Your task to perform on an android device: Search for "razer blackwidow" on walmart, select the first entry, and add it to the cart. Image 0: 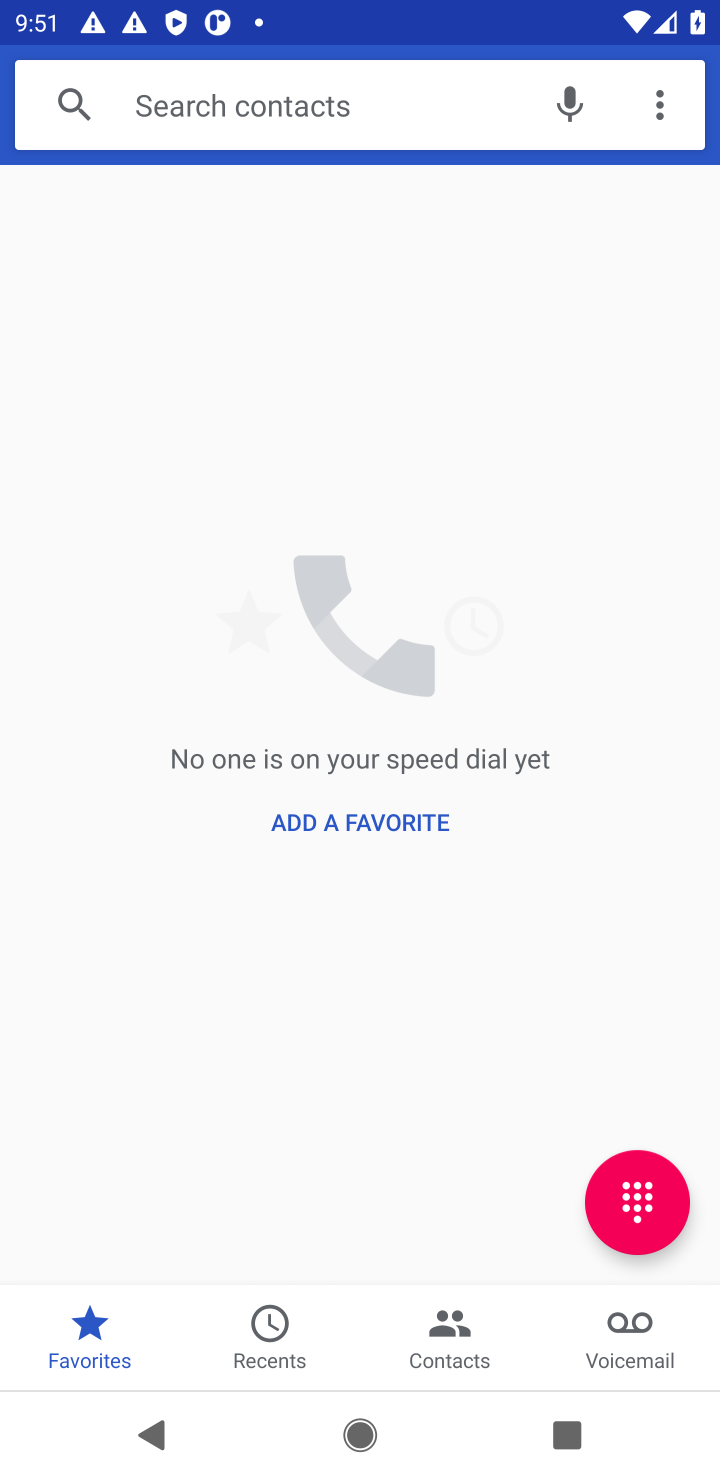
Step 0: press home button
Your task to perform on an android device: Search for "razer blackwidow" on walmart, select the first entry, and add it to the cart. Image 1: 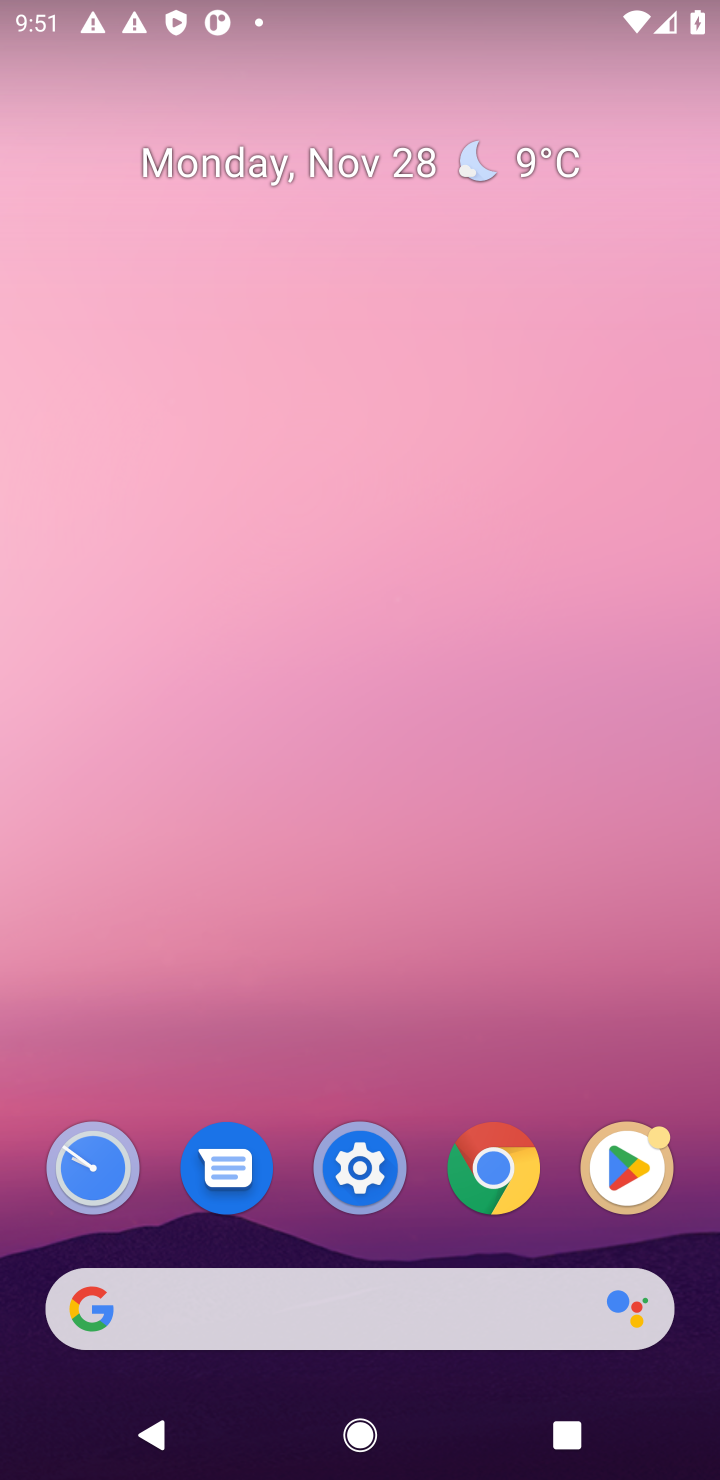
Step 1: click (234, 1296)
Your task to perform on an android device: Search for "razer blackwidow" on walmart, select the first entry, and add it to the cart. Image 2: 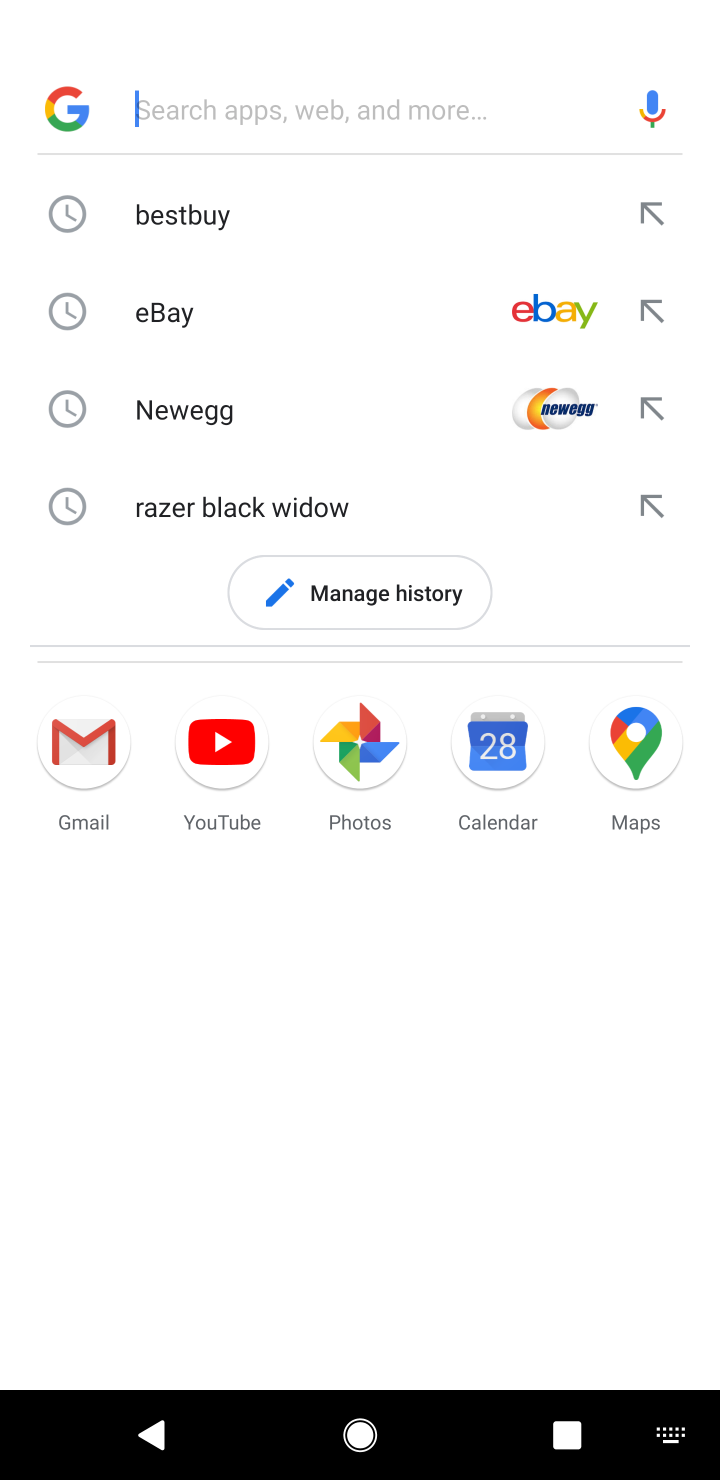
Step 2: type "walmart"
Your task to perform on an android device: Search for "razer blackwidow" on walmart, select the first entry, and add it to the cart. Image 3: 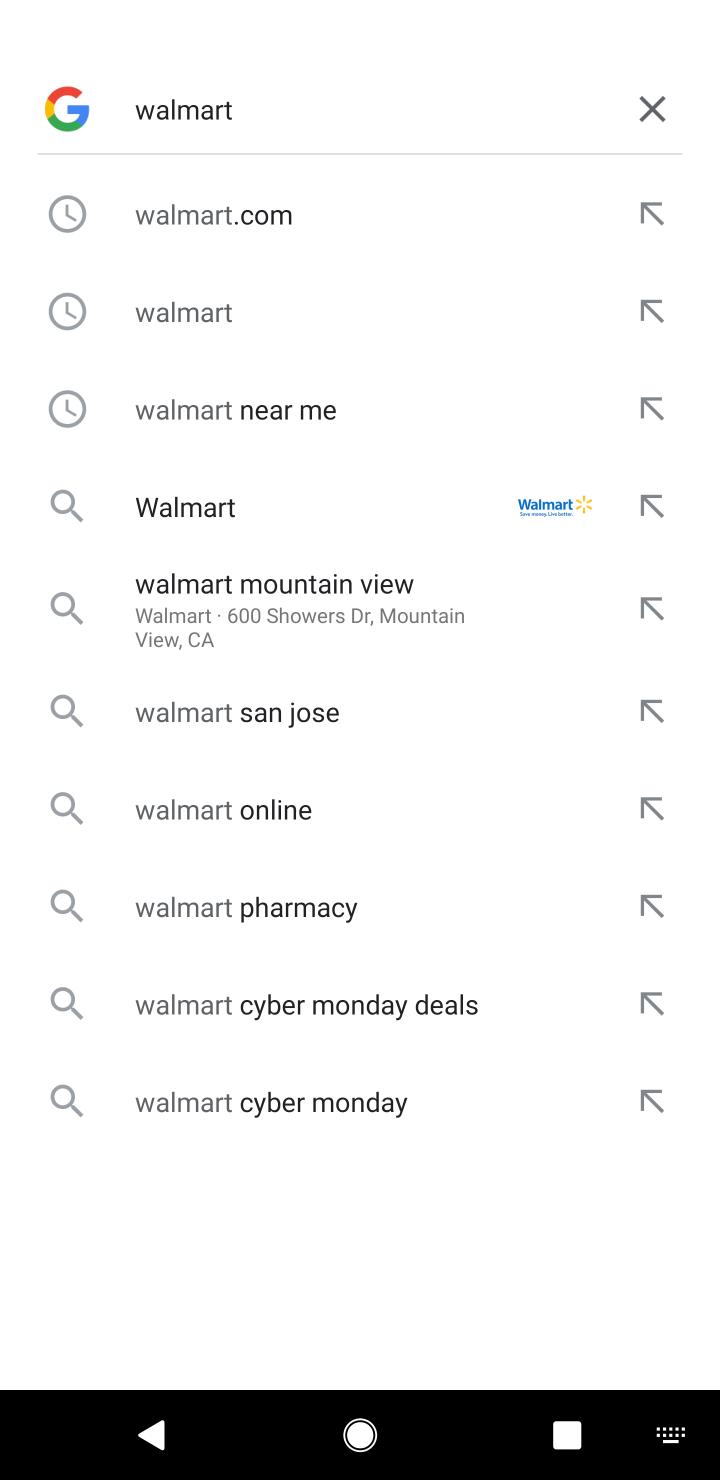
Step 3: click (263, 234)
Your task to perform on an android device: Search for "razer blackwidow" on walmart, select the first entry, and add it to the cart. Image 4: 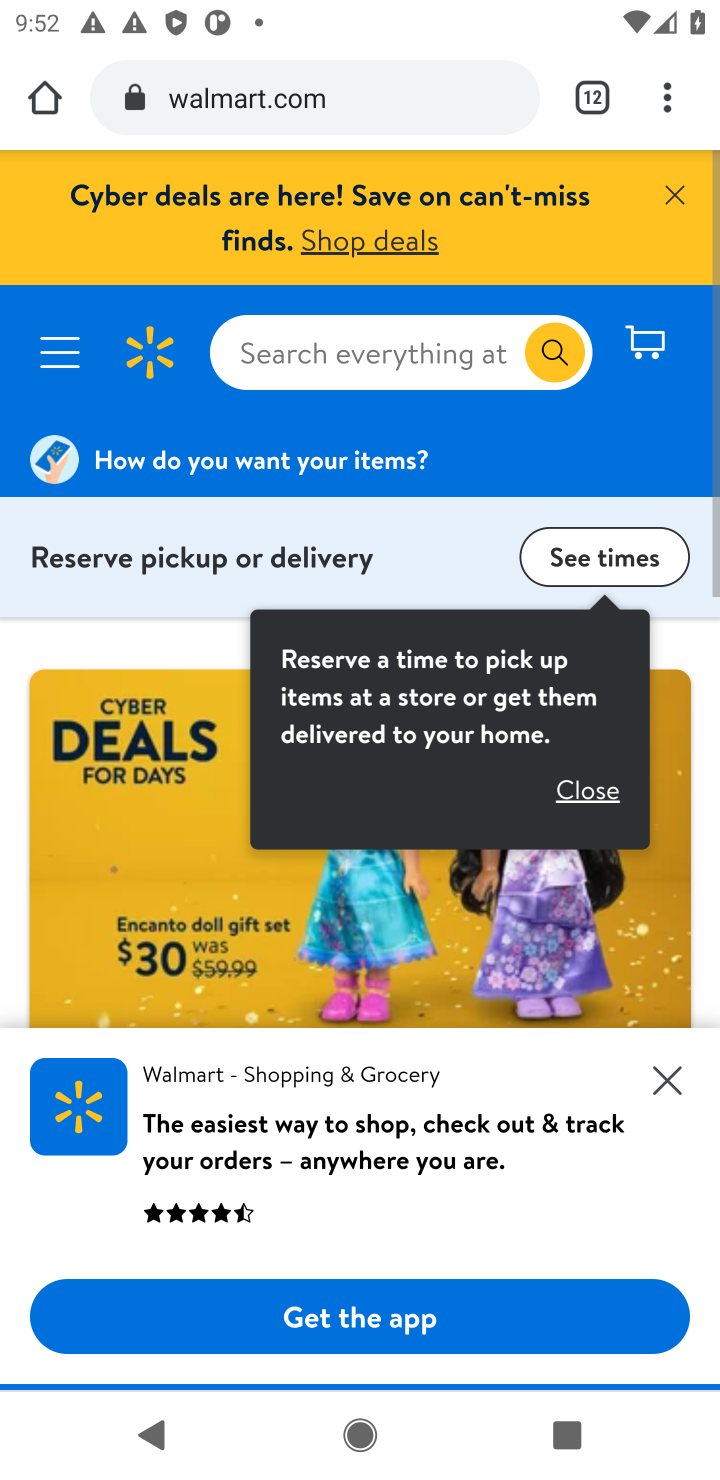
Step 4: click (367, 356)
Your task to perform on an android device: Search for "razer blackwidow" on walmart, select the first entry, and add it to the cart. Image 5: 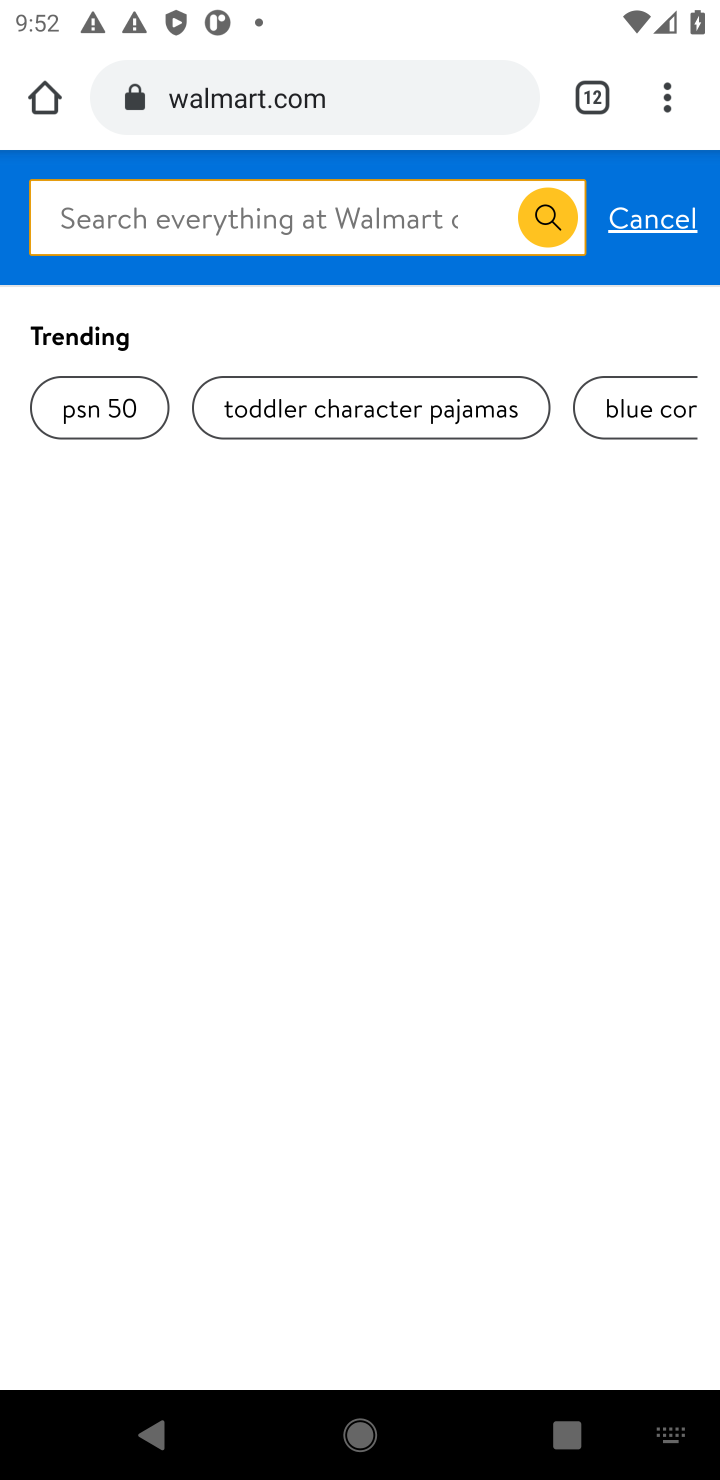
Step 5: type "razer blackwindow"
Your task to perform on an android device: Search for "razer blackwidow" on walmart, select the first entry, and add it to the cart. Image 6: 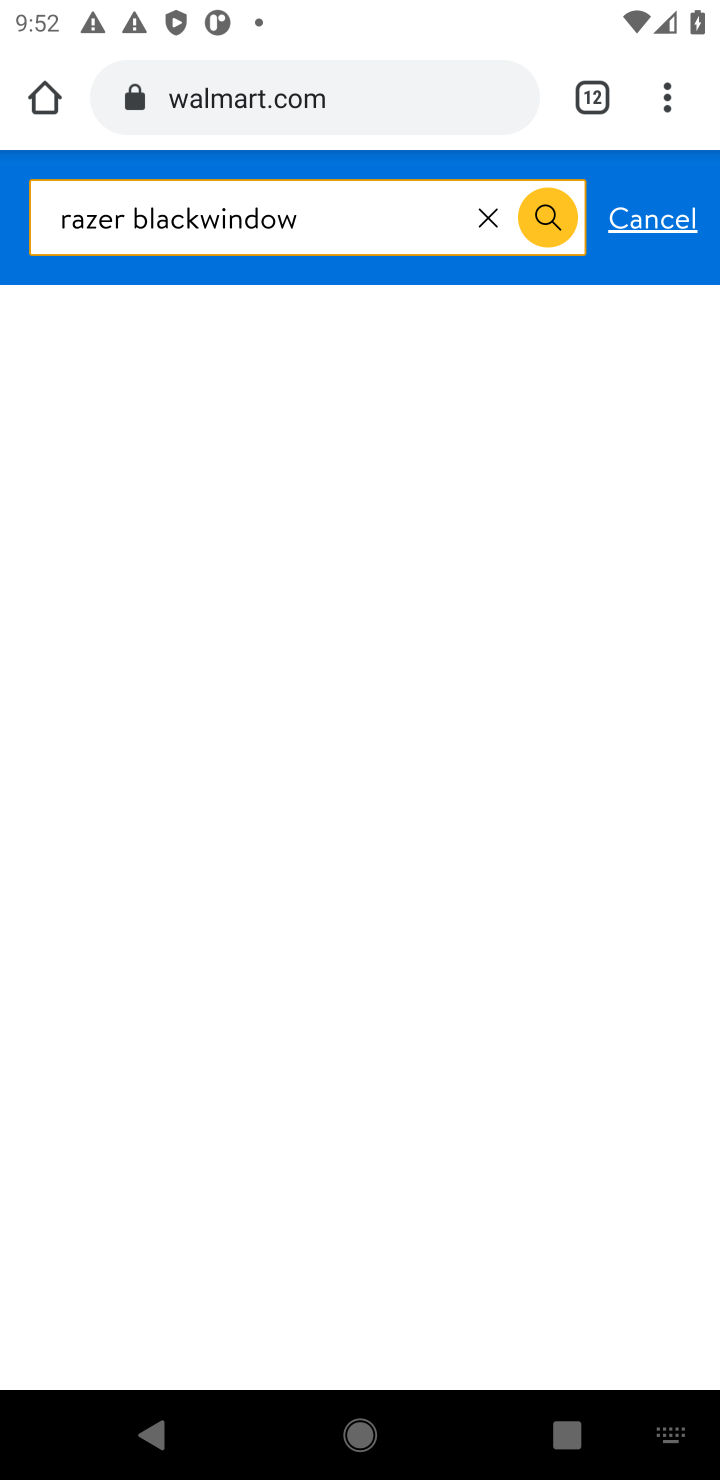
Step 6: click (538, 226)
Your task to perform on an android device: Search for "razer blackwidow" on walmart, select the first entry, and add it to the cart. Image 7: 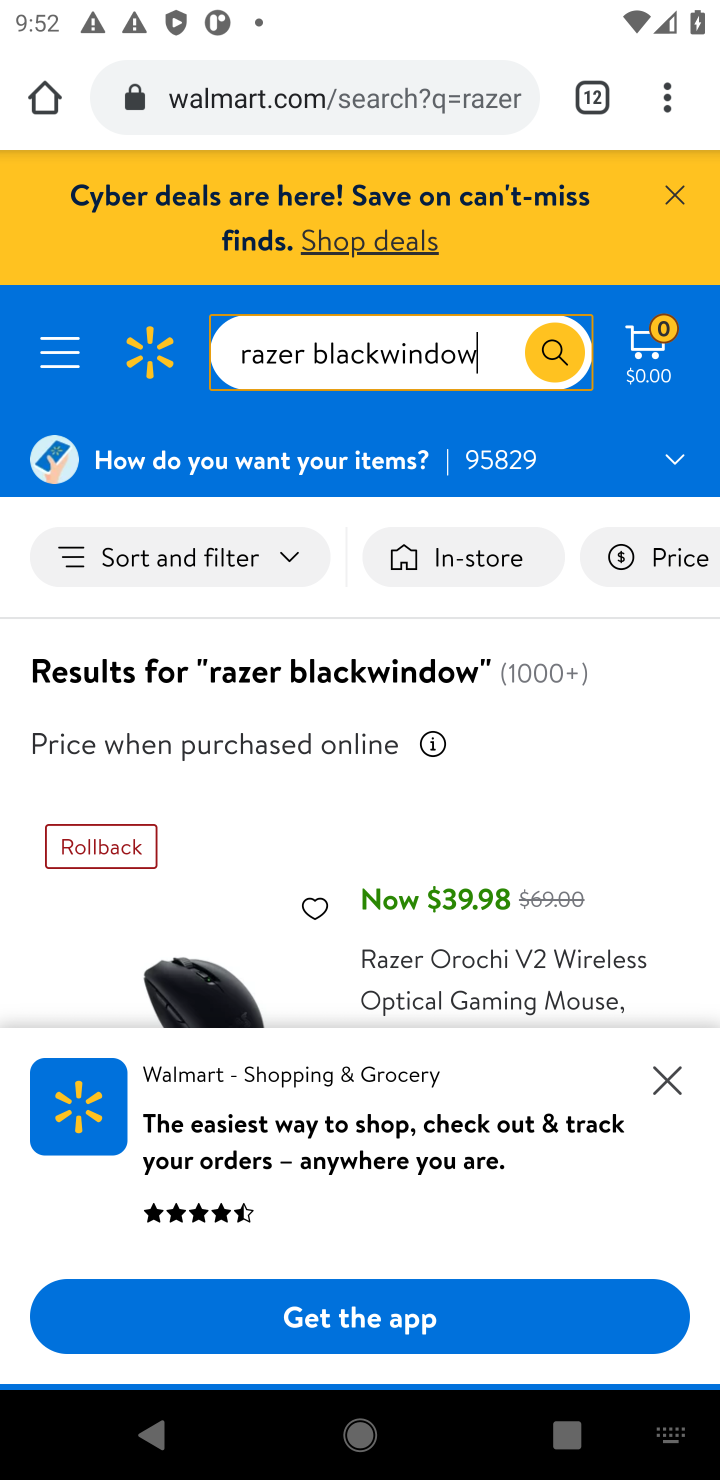
Step 7: click (660, 1086)
Your task to perform on an android device: Search for "razer blackwidow" on walmart, select the first entry, and add it to the cart. Image 8: 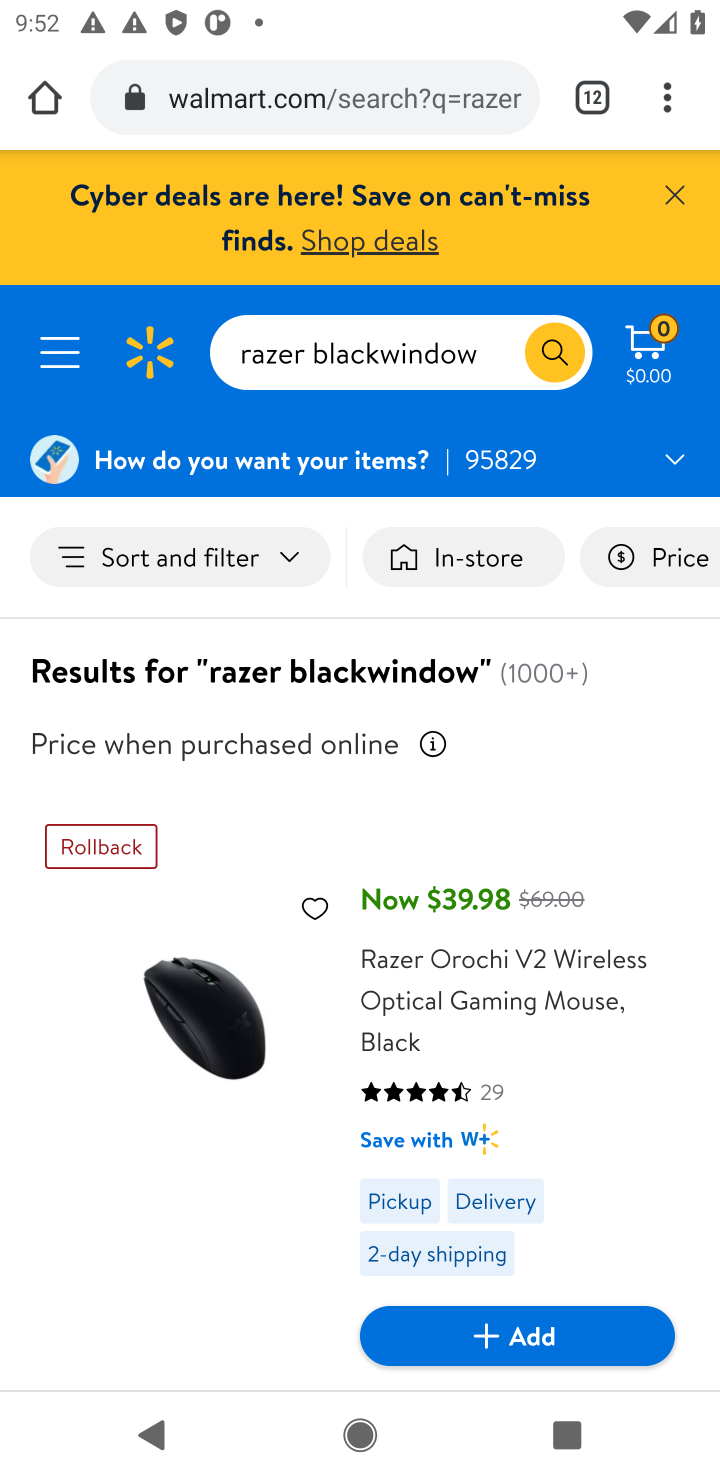
Step 8: click (549, 1337)
Your task to perform on an android device: Search for "razer blackwidow" on walmart, select the first entry, and add it to the cart. Image 9: 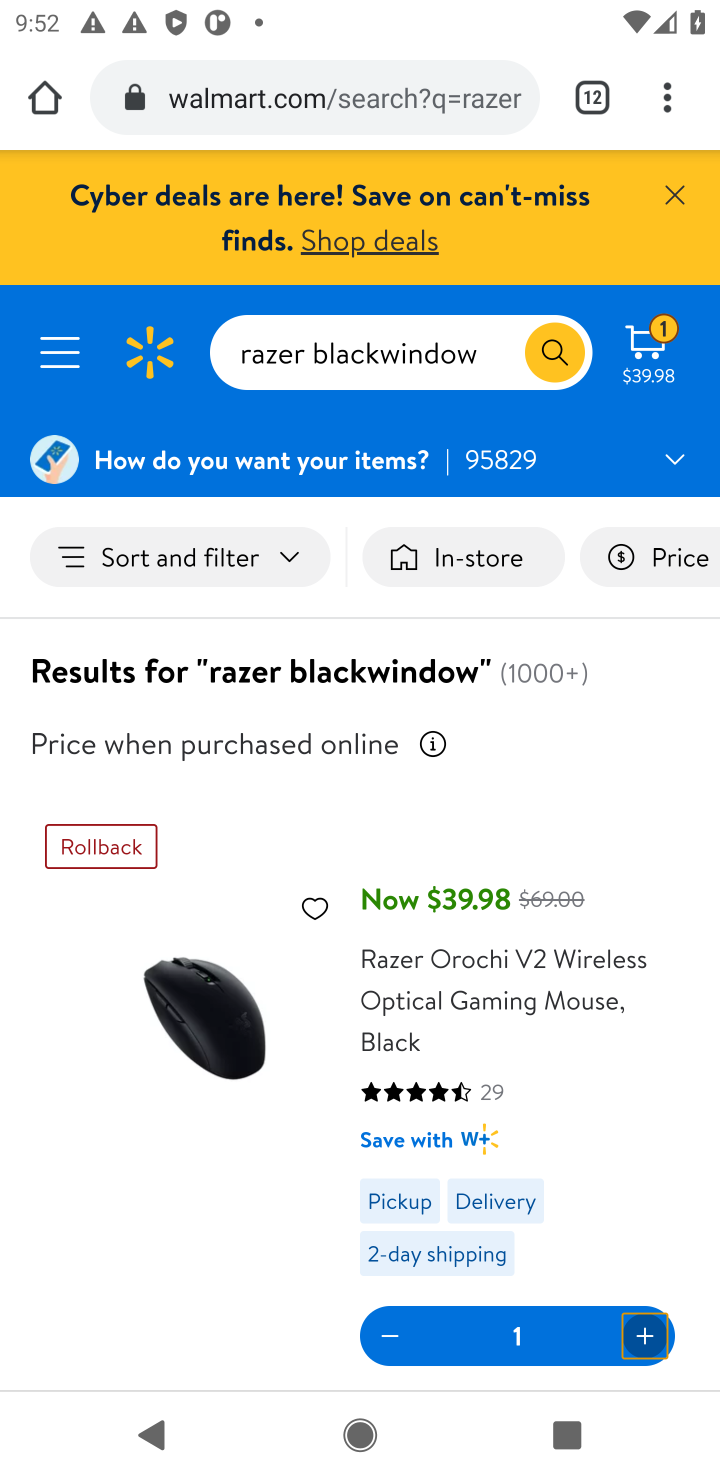
Step 9: task complete